Your task to perform on an android device: What is the news today? Image 0: 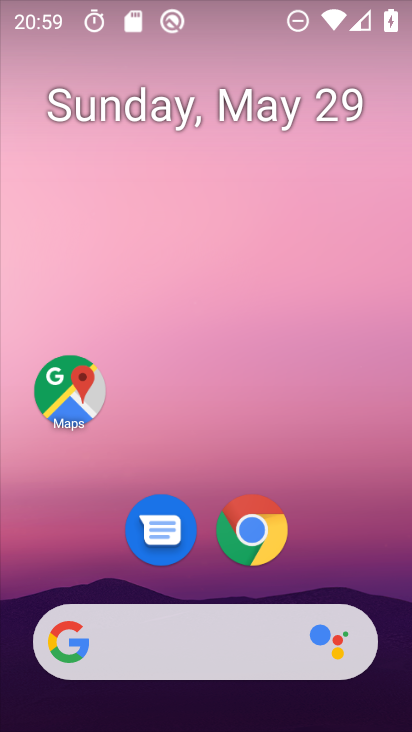
Step 0: drag from (222, 679) to (279, 46)
Your task to perform on an android device: What is the news today? Image 1: 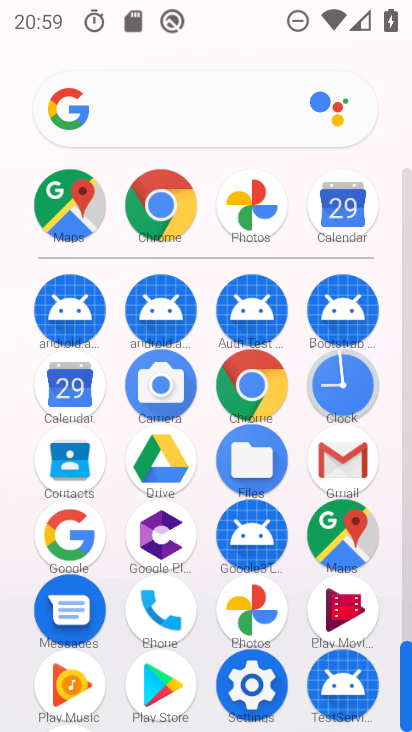
Step 1: click (177, 129)
Your task to perform on an android device: What is the news today? Image 2: 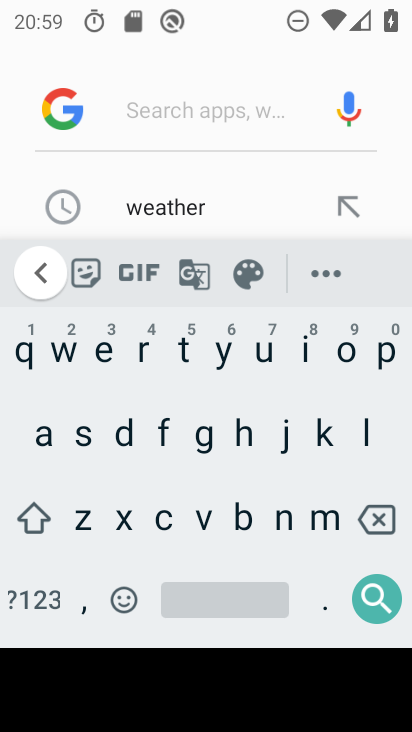
Step 2: click (275, 524)
Your task to perform on an android device: What is the news today? Image 3: 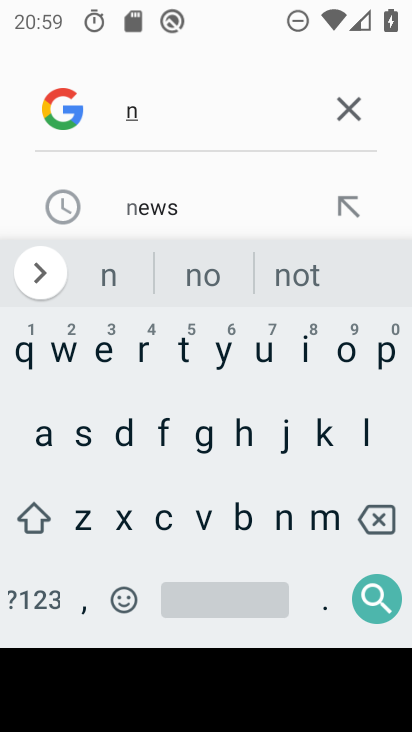
Step 3: click (106, 361)
Your task to perform on an android device: What is the news today? Image 4: 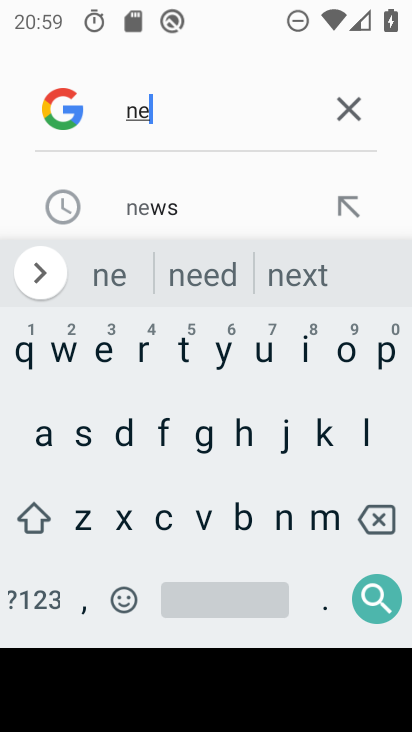
Step 4: click (182, 206)
Your task to perform on an android device: What is the news today? Image 5: 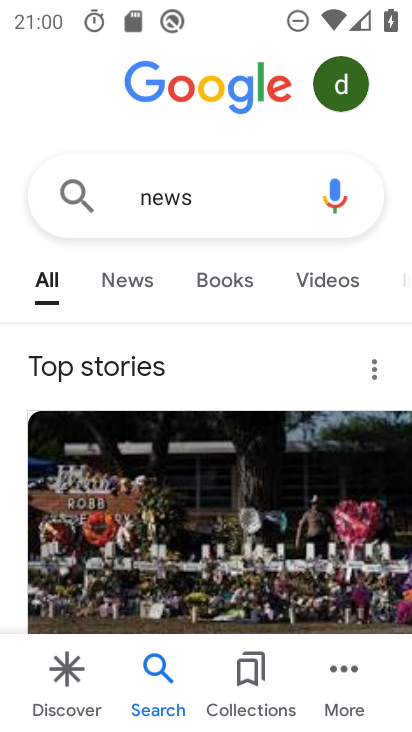
Step 5: task complete